Your task to perform on an android device: snooze an email in the gmail app Image 0: 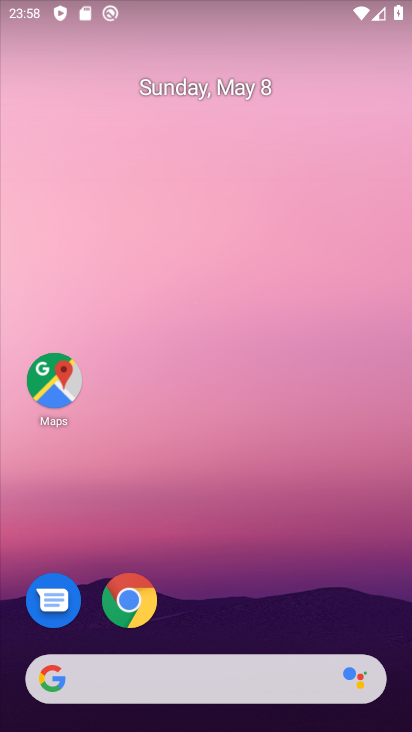
Step 0: drag from (253, 612) to (245, 247)
Your task to perform on an android device: snooze an email in the gmail app Image 1: 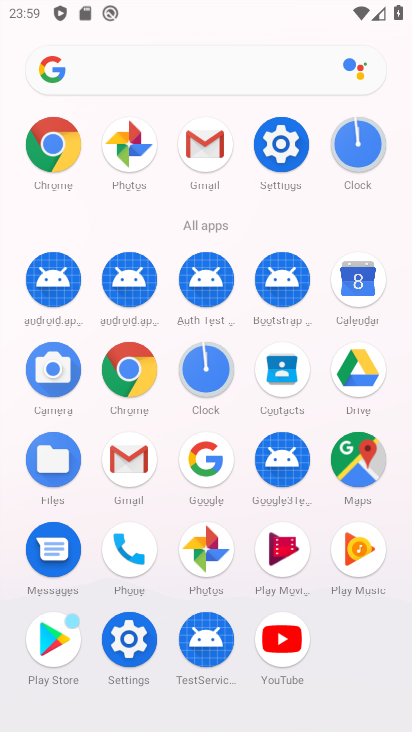
Step 1: click (200, 153)
Your task to perform on an android device: snooze an email in the gmail app Image 2: 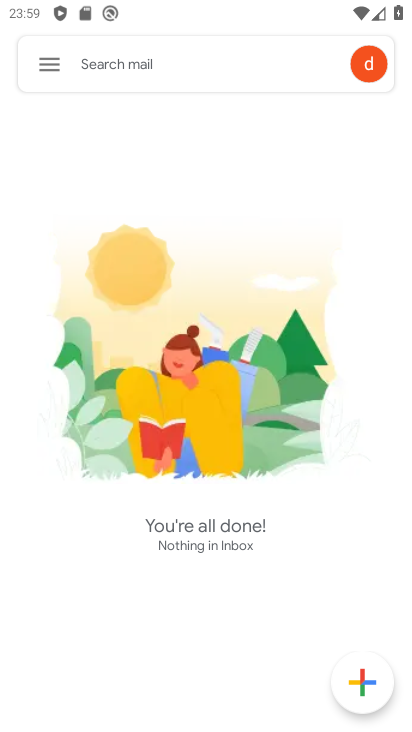
Step 2: click (49, 57)
Your task to perform on an android device: snooze an email in the gmail app Image 3: 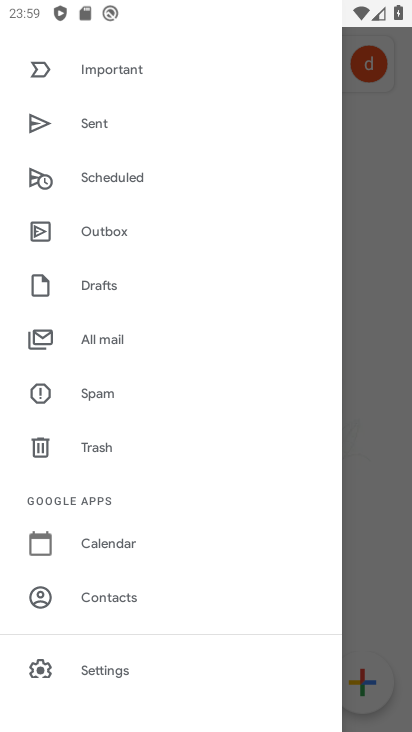
Step 3: drag from (169, 124) to (172, 492)
Your task to perform on an android device: snooze an email in the gmail app Image 4: 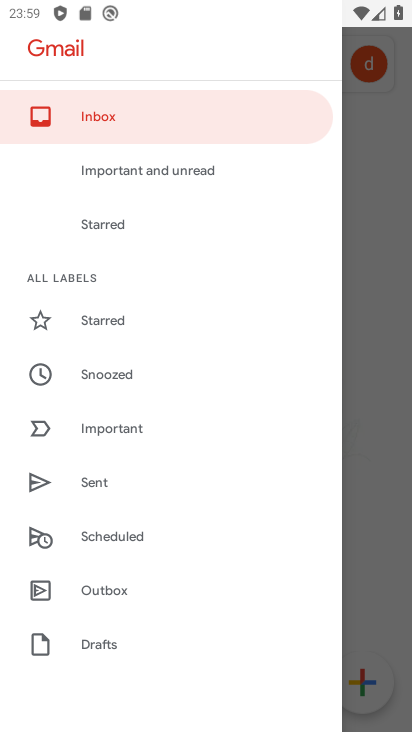
Step 4: click (185, 120)
Your task to perform on an android device: snooze an email in the gmail app Image 5: 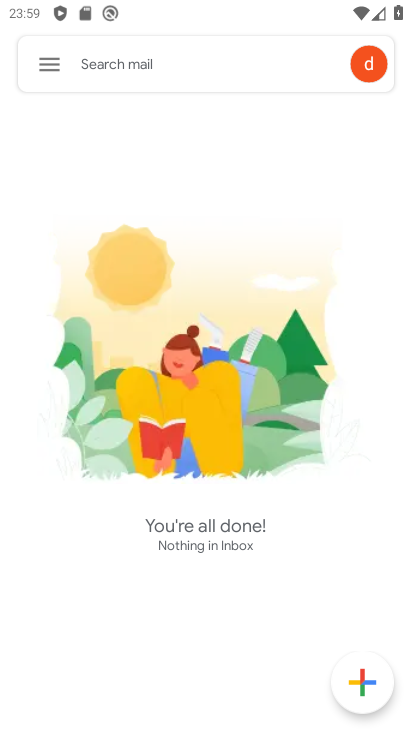
Step 5: click (47, 69)
Your task to perform on an android device: snooze an email in the gmail app Image 6: 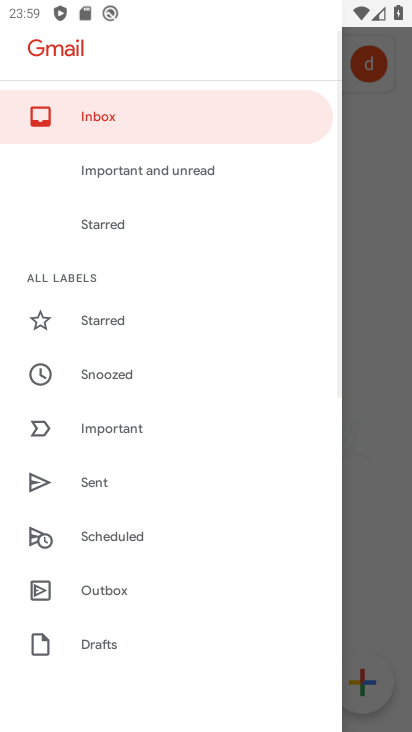
Step 6: drag from (242, 669) to (248, 145)
Your task to perform on an android device: snooze an email in the gmail app Image 7: 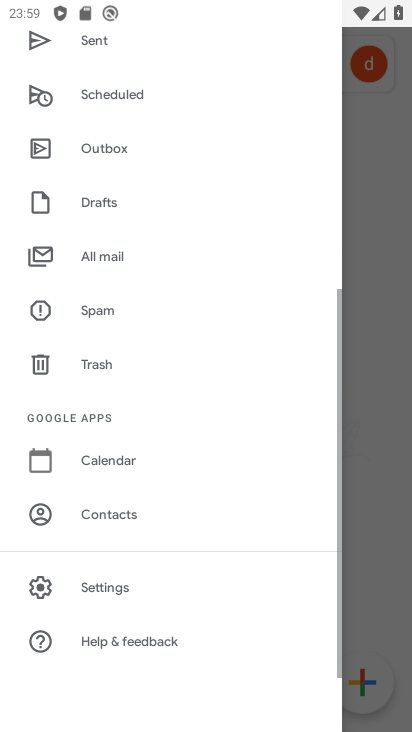
Step 7: click (220, 250)
Your task to perform on an android device: snooze an email in the gmail app Image 8: 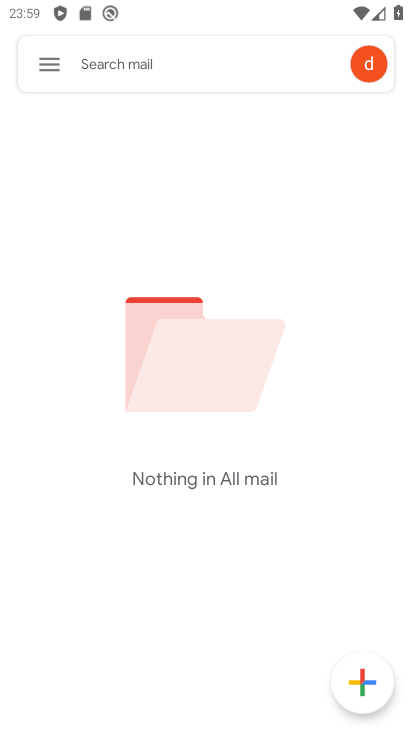
Step 8: task complete